Your task to perform on an android device: Go to CNN.com Image 0: 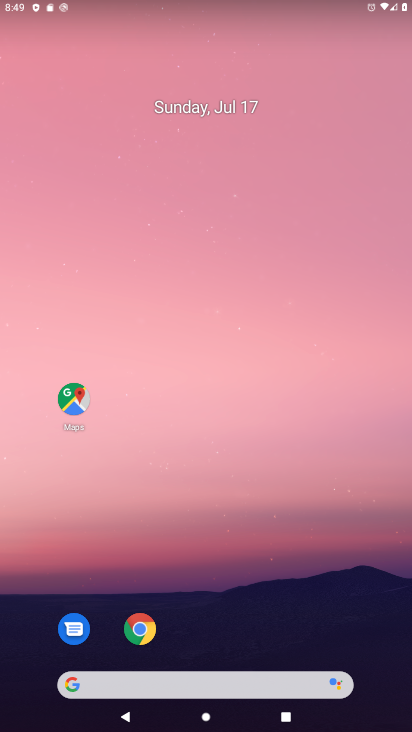
Step 0: click (144, 625)
Your task to perform on an android device: Go to CNN.com Image 1: 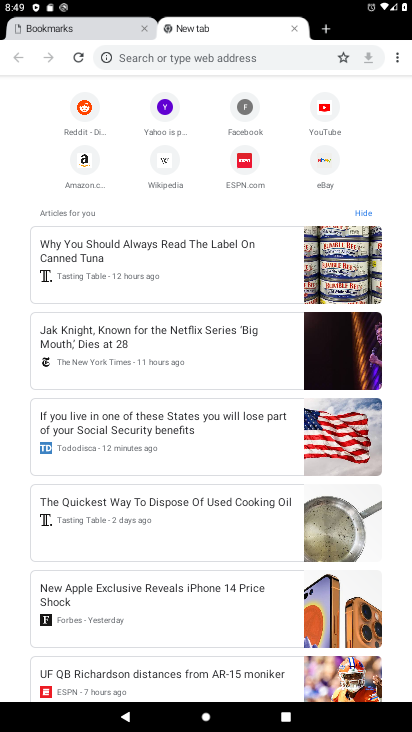
Step 1: click (251, 57)
Your task to perform on an android device: Go to CNN.com Image 2: 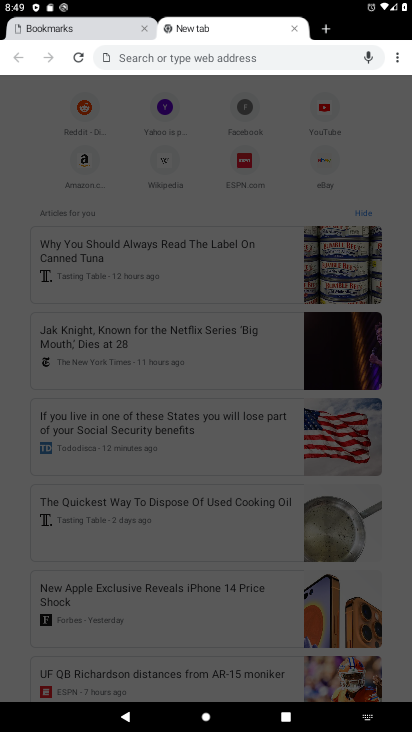
Step 2: type "CNN.com"
Your task to perform on an android device: Go to CNN.com Image 3: 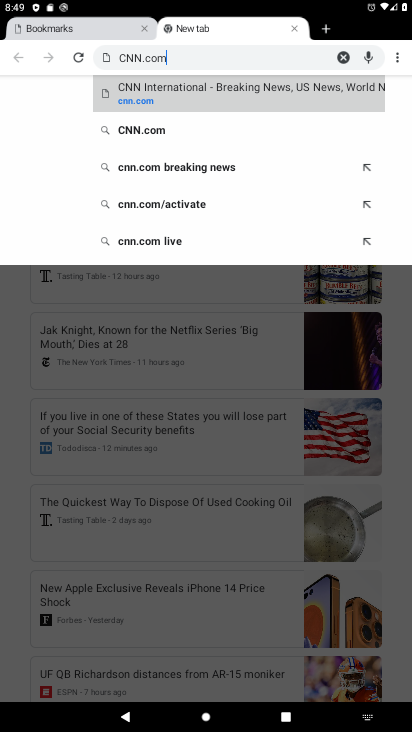
Step 3: click (259, 100)
Your task to perform on an android device: Go to CNN.com Image 4: 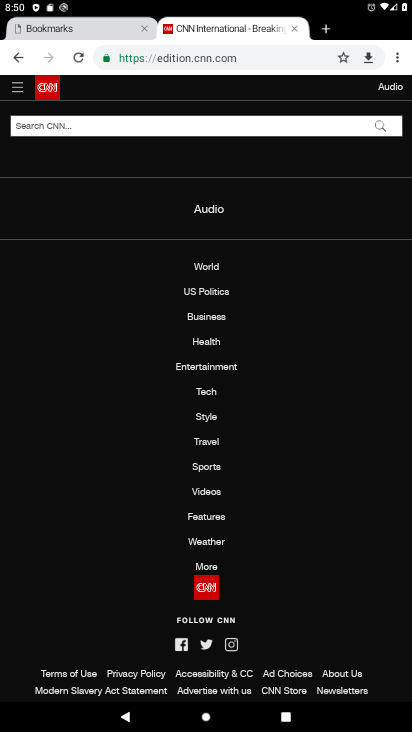
Step 4: task complete